Your task to perform on an android device: refresh tabs in the chrome app Image 0: 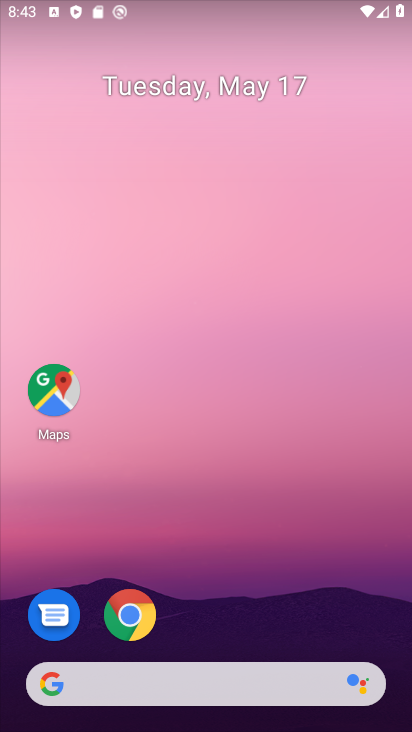
Step 0: click (130, 611)
Your task to perform on an android device: refresh tabs in the chrome app Image 1: 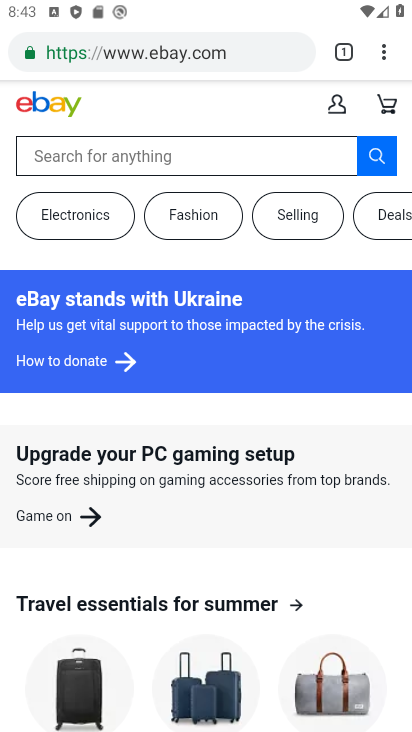
Step 1: click (383, 54)
Your task to perform on an android device: refresh tabs in the chrome app Image 2: 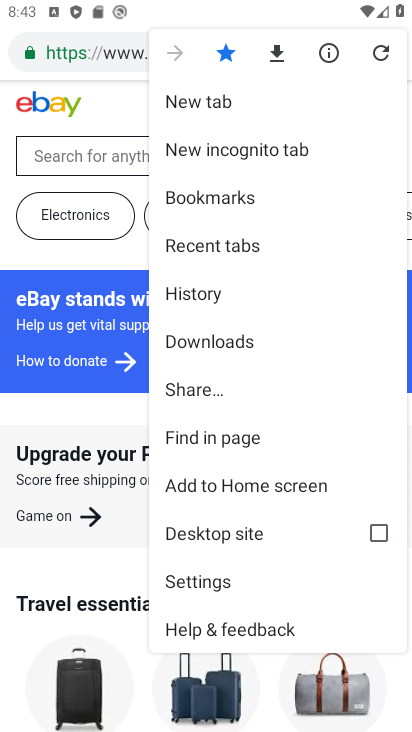
Step 2: click (374, 54)
Your task to perform on an android device: refresh tabs in the chrome app Image 3: 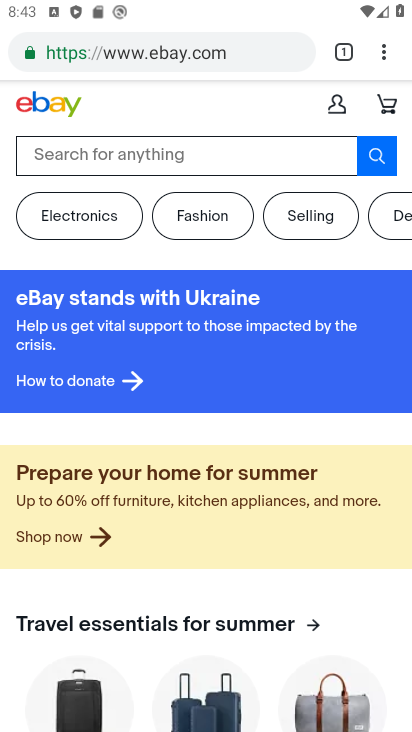
Step 3: task complete